Your task to perform on an android device: manage bookmarks in the chrome app Image 0: 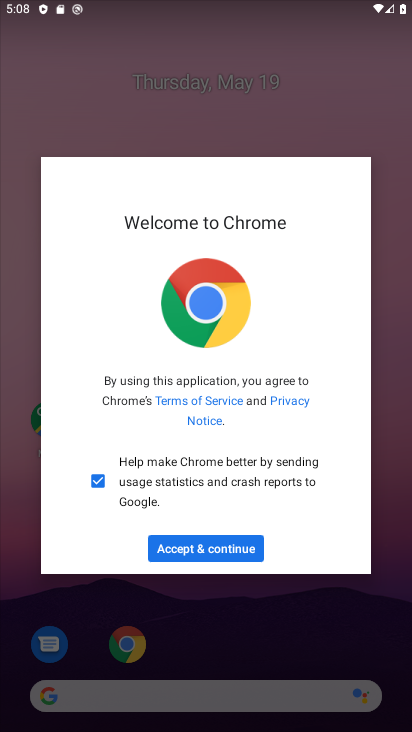
Step 0: press back button
Your task to perform on an android device: manage bookmarks in the chrome app Image 1: 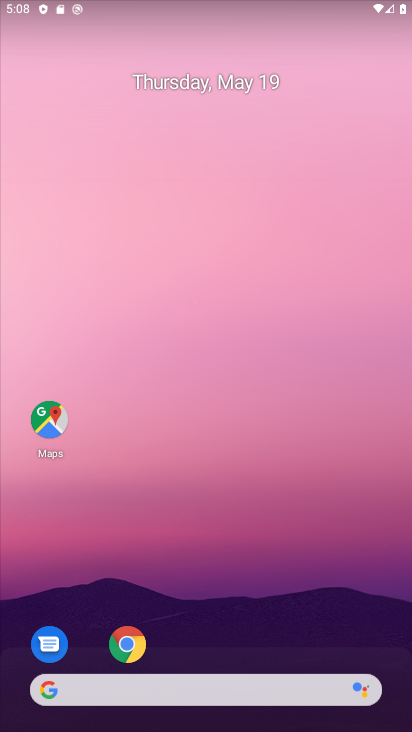
Step 1: click (122, 641)
Your task to perform on an android device: manage bookmarks in the chrome app Image 2: 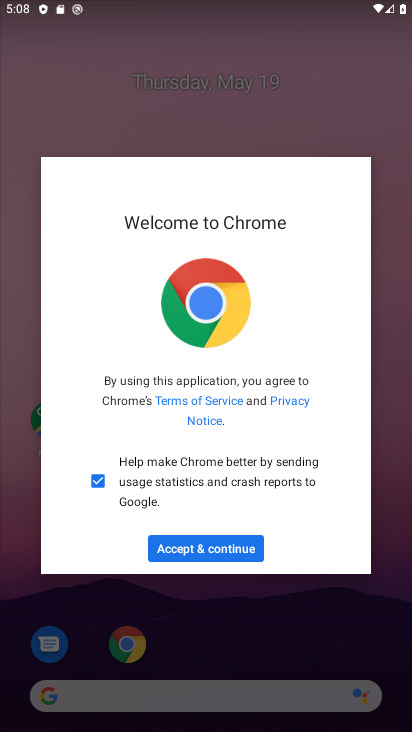
Step 2: click (146, 533)
Your task to perform on an android device: manage bookmarks in the chrome app Image 3: 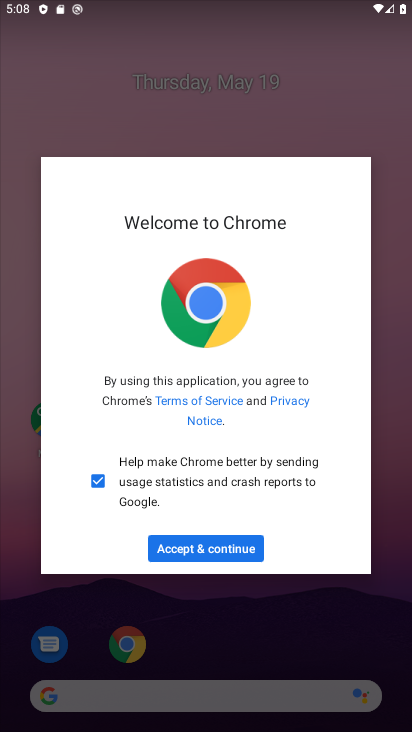
Step 3: click (187, 538)
Your task to perform on an android device: manage bookmarks in the chrome app Image 4: 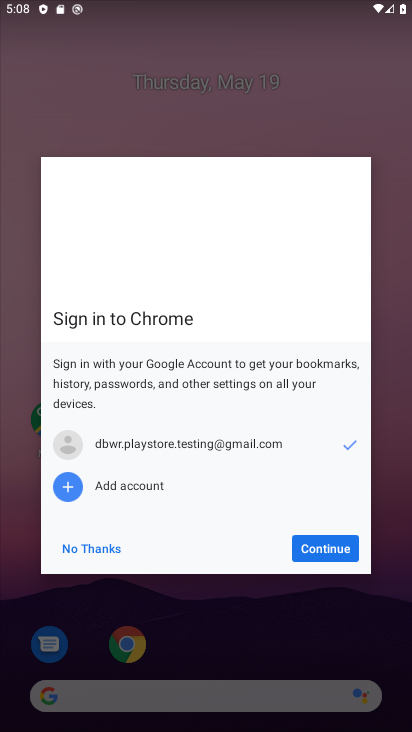
Step 4: click (321, 544)
Your task to perform on an android device: manage bookmarks in the chrome app Image 5: 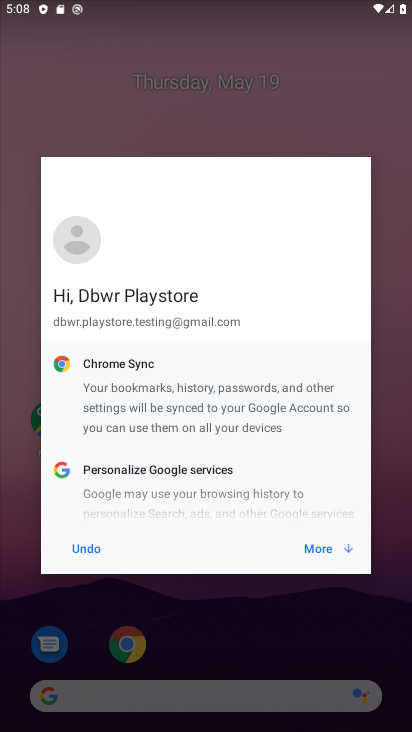
Step 5: click (326, 545)
Your task to perform on an android device: manage bookmarks in the chrome app Image 6: 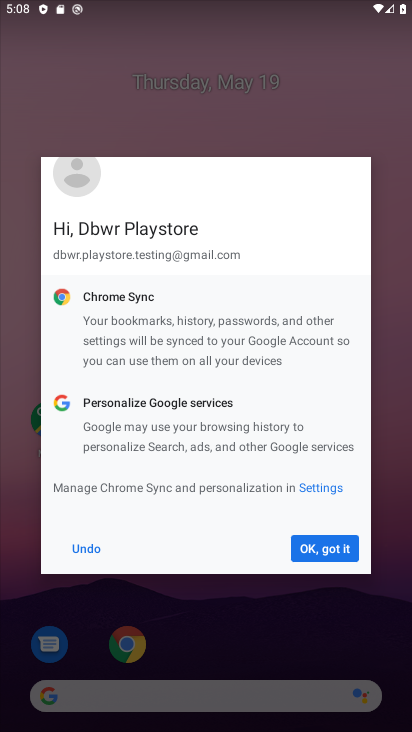
Step 6: click (326, 545)
Your task to perform on an android device: manage bookmarks in the chrome app Image 7: 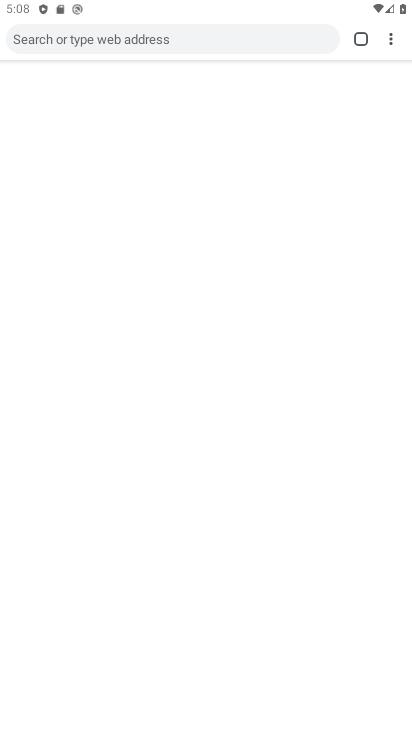
Step 7: press back button
Your task to perform on an android device: manage bookmarks in the chrome app Image 8: 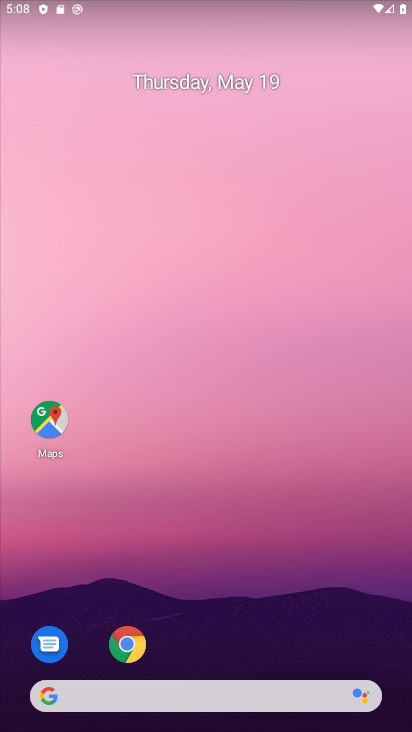
Step 8: click (123, 641)
Your task to perform on an android device: manage bookmarks in the chrome app Image 9: 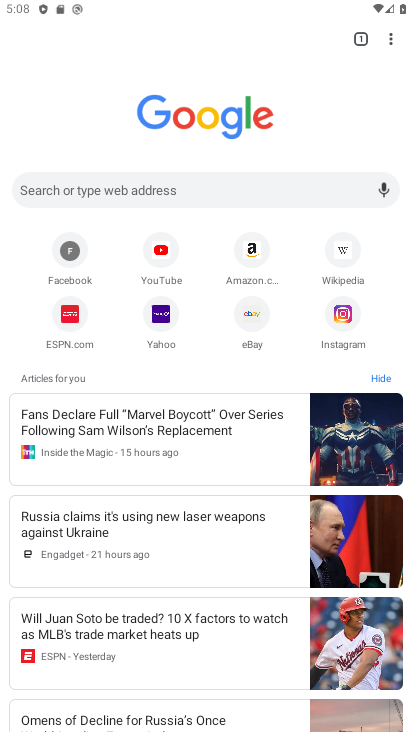
Step 9: task complete